Your task to perform on an android device: Open the calendar and show me this week's events? Image 0: 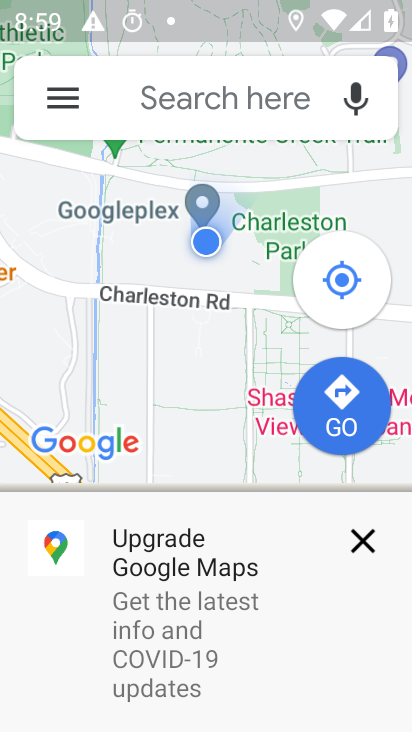
Step 0: press home button
Your task to perform on an android device: Open the calendar and show me this week's events? Image 1: 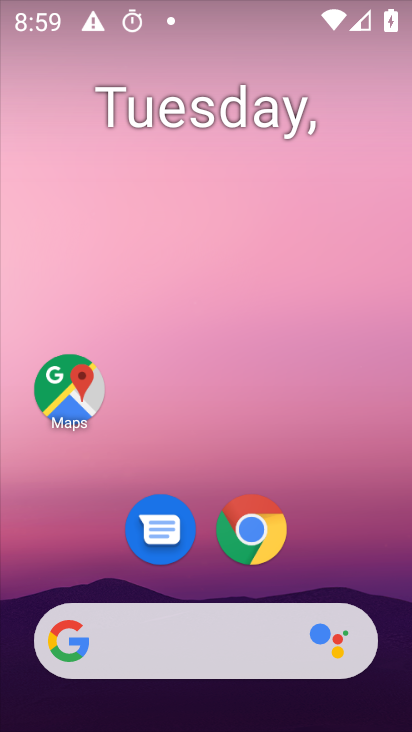
Step 1: drag from (186, 568) to (216, 206)
Your task to perform on an android device: Open the calendar and show me this week's events? Image 2: 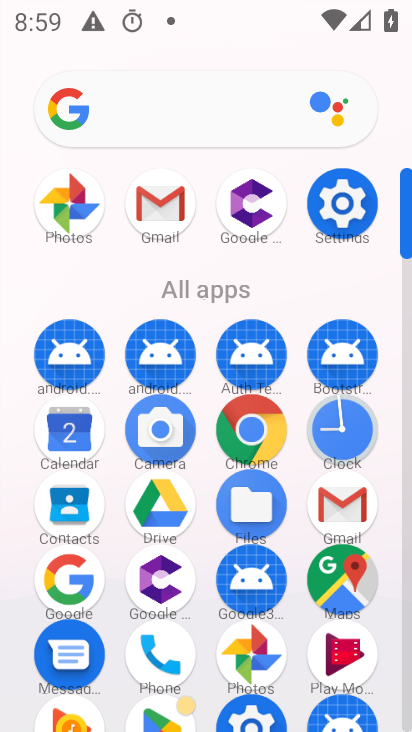
Step 2: drag from (202, 618) to (253, 177)
Your task to perform on an android device: Open the calendar and show me this week's events? Image 3: 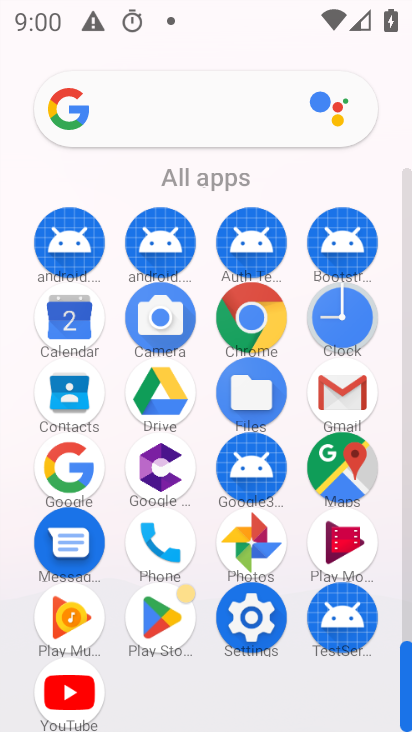
Step 3: click (74, 309)
Your task to perform on an android device: Open the calendar and show me this week's events? Image 4: 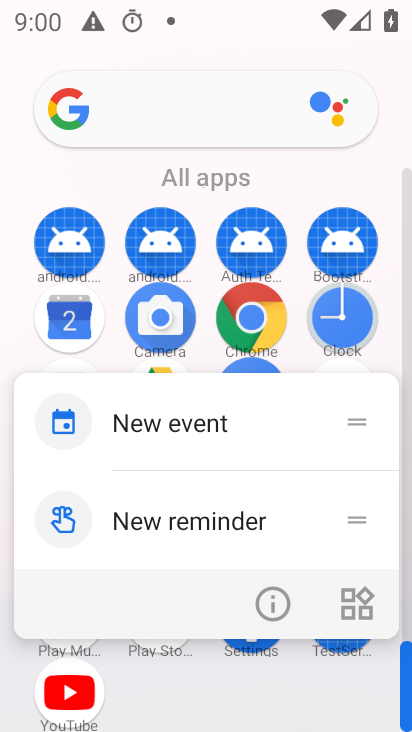
Step 4: click (266, 598)
Your task to perform on an android device: Open the calendar and show me this week's events? Image 5: 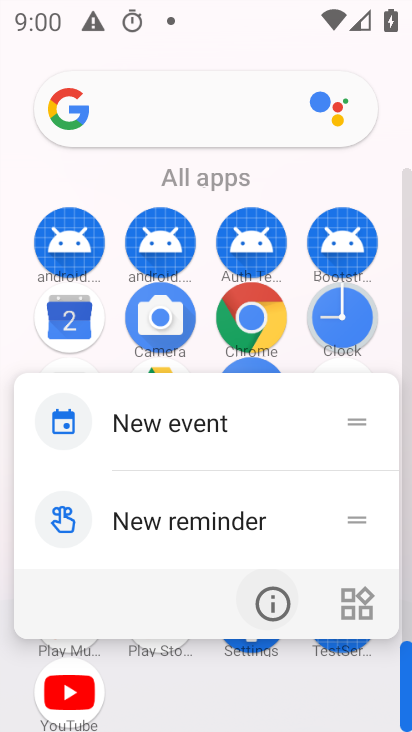
Step 5: click (266, 598)
Your task to perform on an android device: Open the calendar and show me this week's events? Image 6: 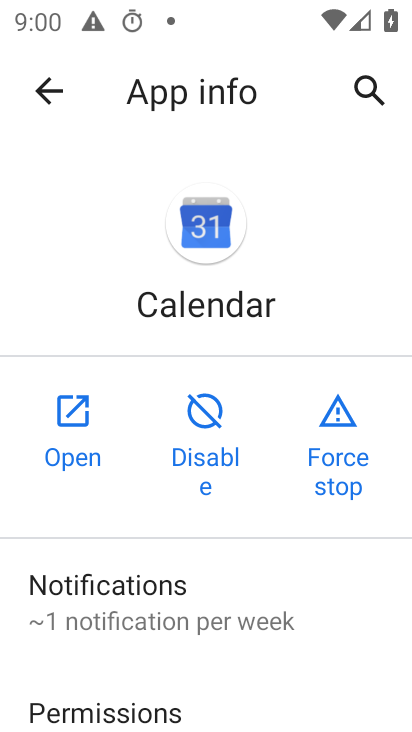
Step 6: click (86, 417)
Your task to perform on an android device: Open the calendar and show me this week's events? Image 7: 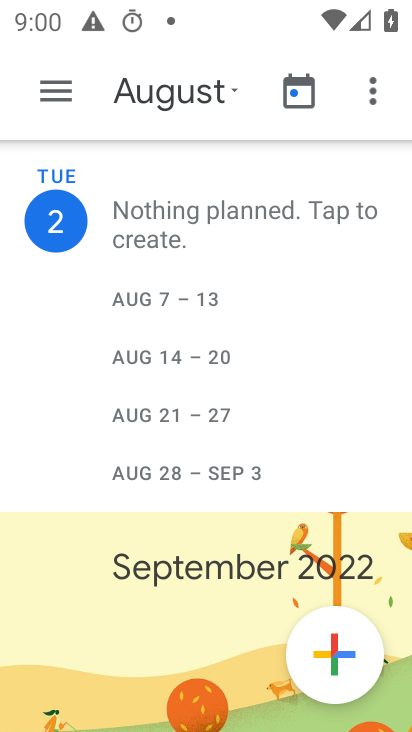
Step 7: click (185, 80)
Your task to perform on an android device: Open the calendar and show me this week's events? Image 8: 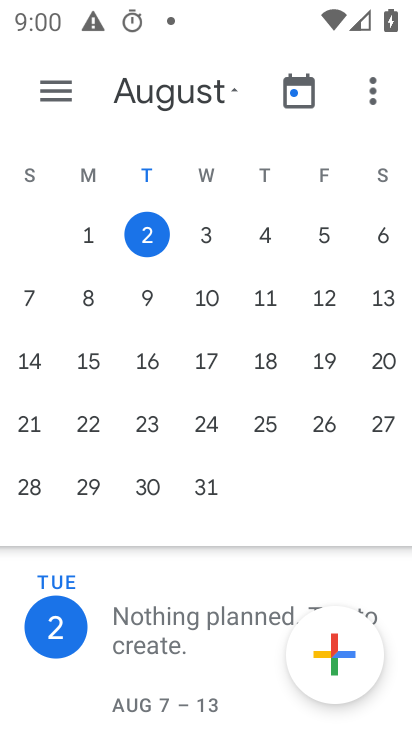
Step 8: click (307, 97)
Your task to perform on an android device: Open the calendar and show me this week's events? Image 9: 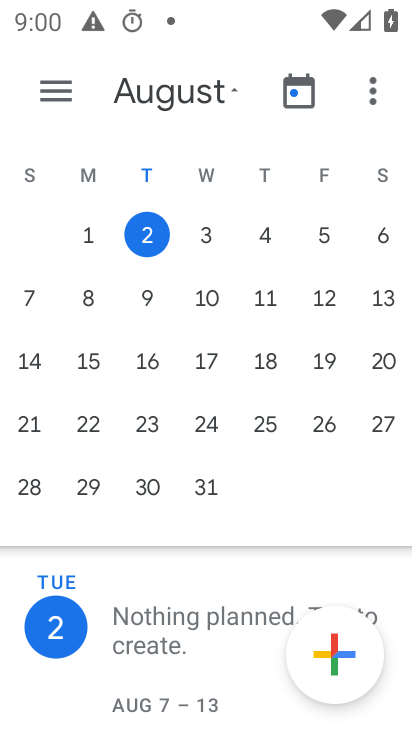
Step 9: task complete